Your task to perform on an android device: Go to Yahoo.com Image 0: 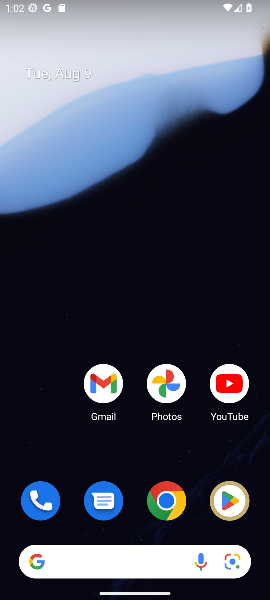
Step 0: click (167, 504)
Your task to perform on an android device: Go to Yahoo.com Image 1: 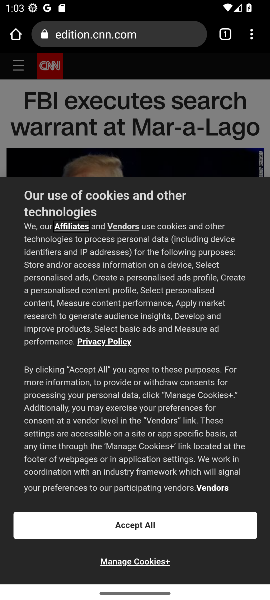
Step 1: click (127, 22)
Your task to perform on an android device: Go to Yahoo.com Image 2: 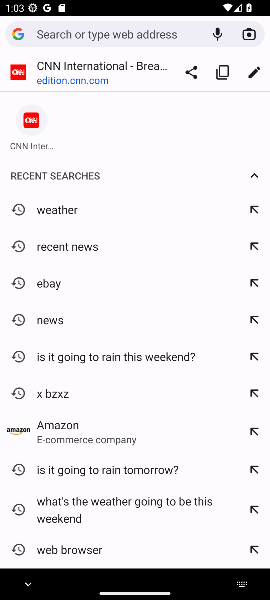
Step 2: type "yahoo.com"
Your task to perform on an android device: Go to Yahoo.com Image 3: 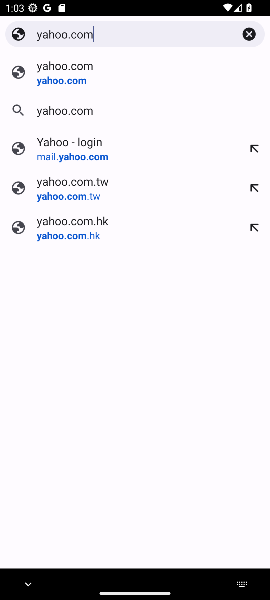
Step 3: click (117, 70)
Your task to perform on an android device: Go to Yahoo.com Image 4: 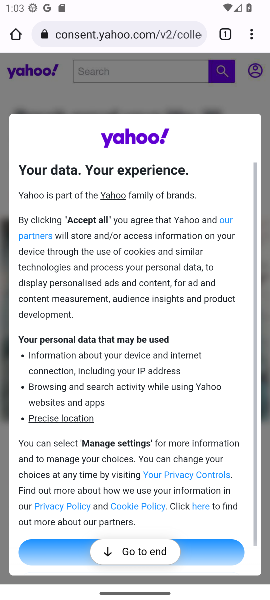
Step 4: task complete